Your task to perform on an android device: What's the weather like inToronto? Image 0: 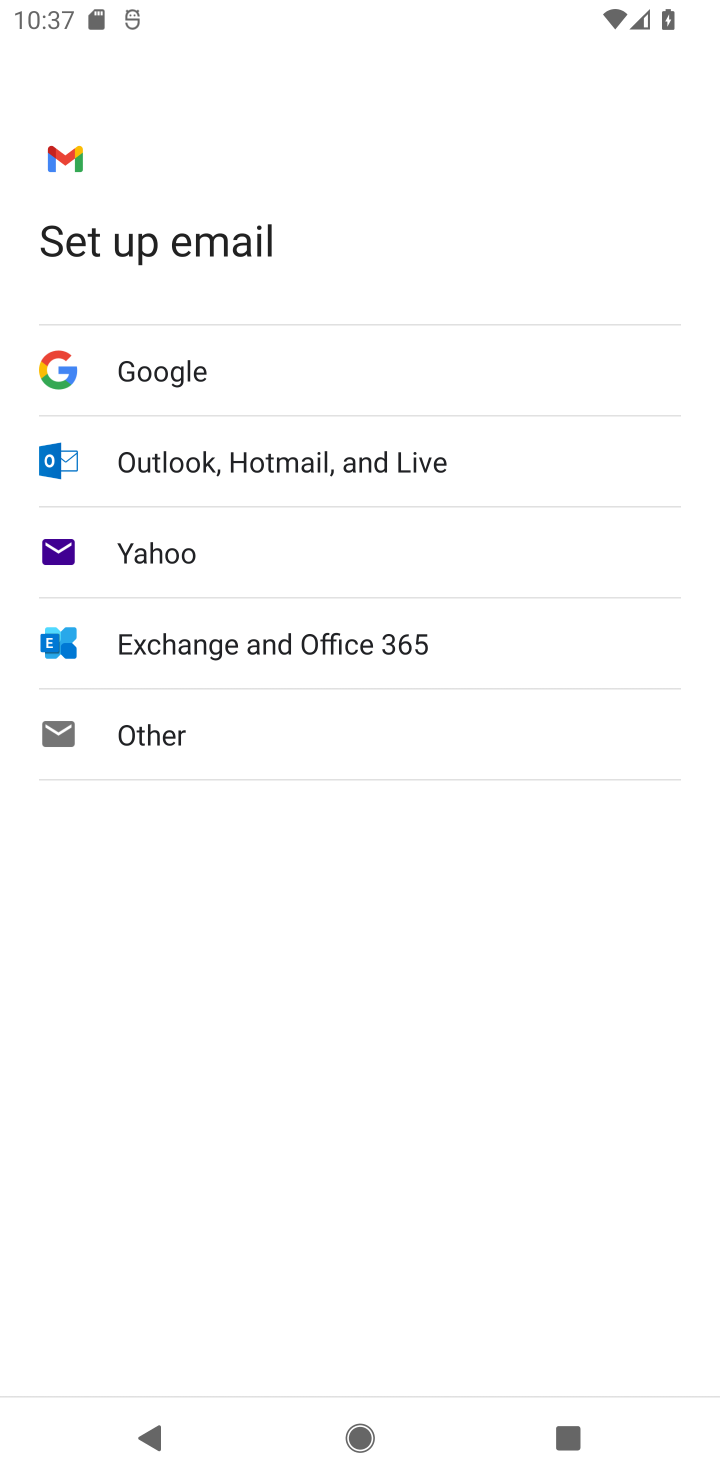
Step 0: press home button
Your task to perform on an android device: What's the weather like inToronto? Image 1: 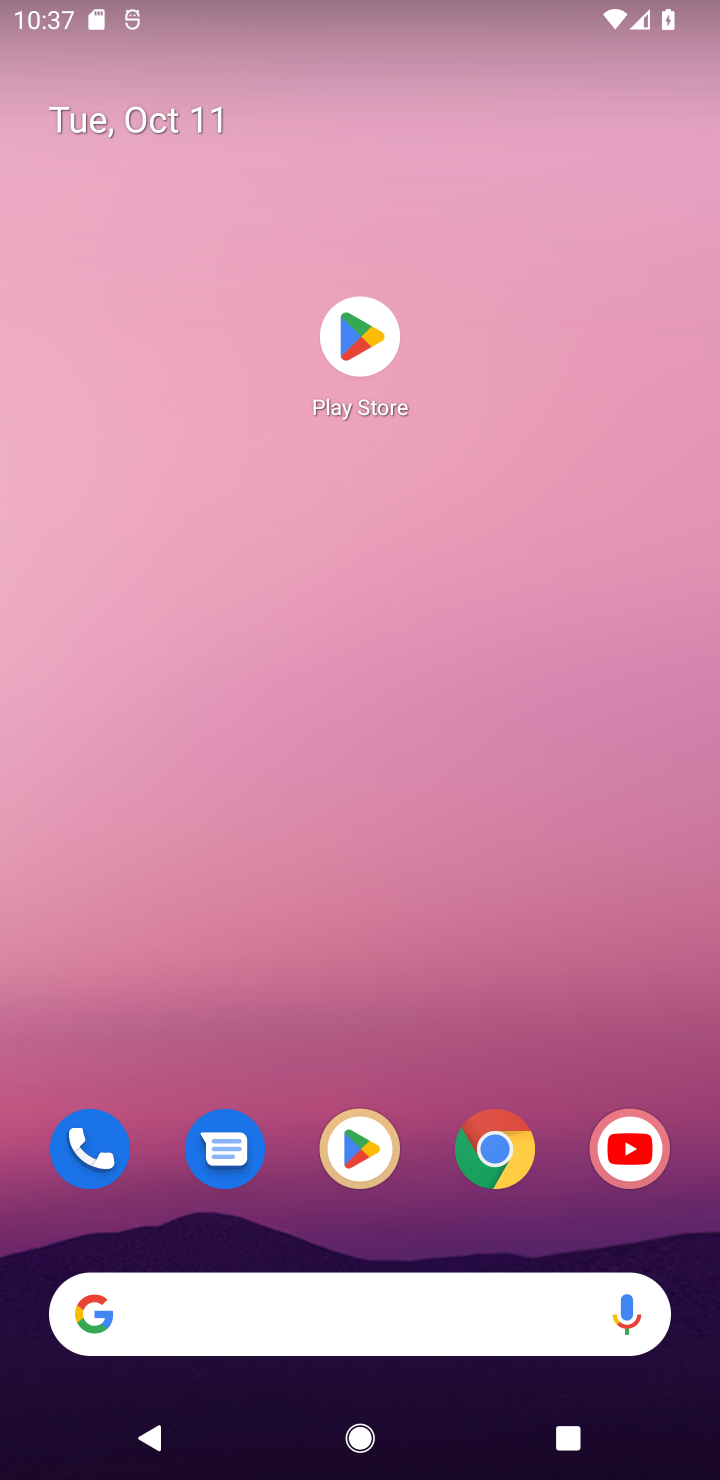
Step 1: click (319, 1298)
Your task to perform on an android device: What's the weather like inToronto? Image 2: 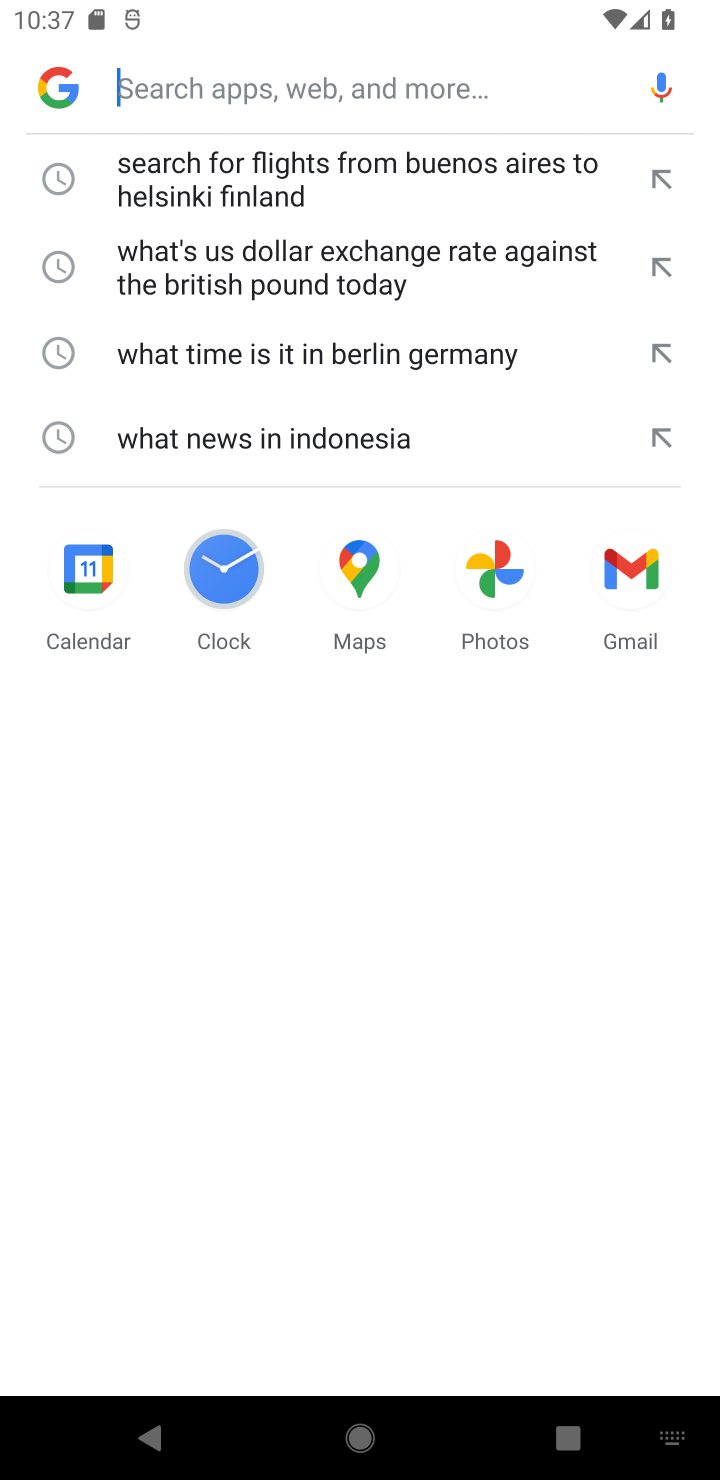
Step 2: type "What's the weather like inToronto?"
Your task to perform on an android device: What's the weather like inToronto? Image 3: 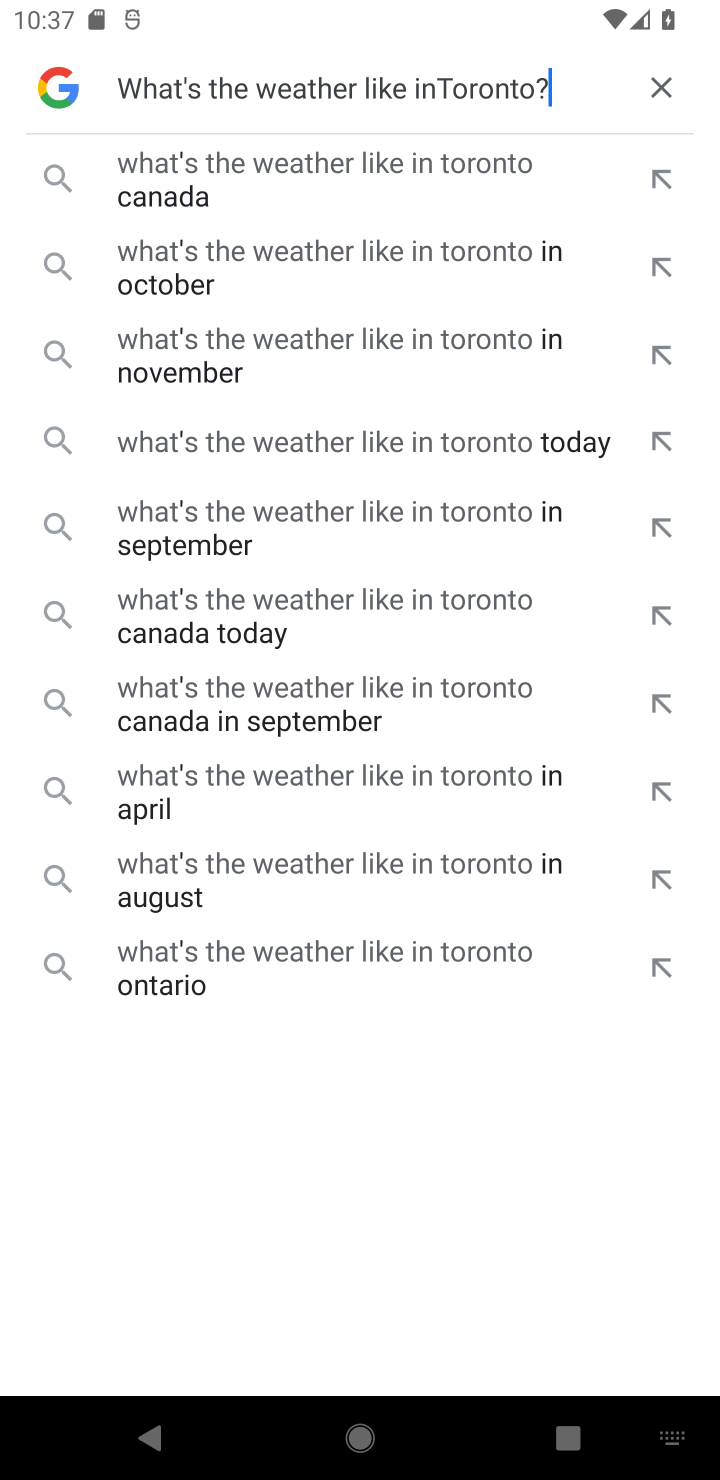
Step 3: click (463, 176)
Your task to perform on an android device: What's the weather like inToronto? Image 4: 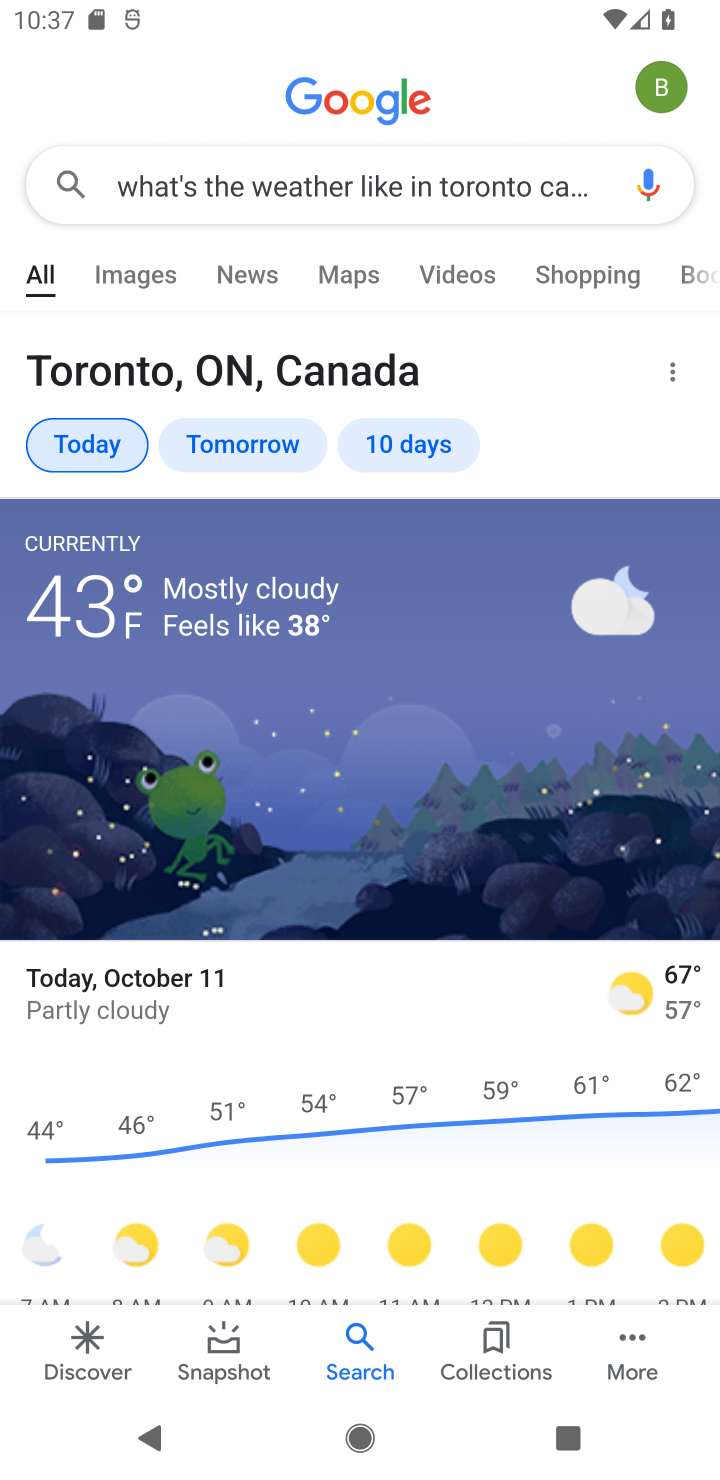
Step 4: task complete